Your task to perform on an android device: toggle show notifications on the lock screen Image 0: 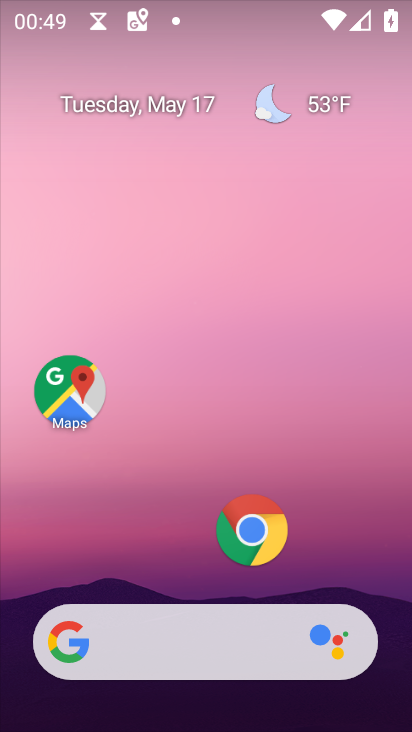
Step 0: drag from (377, 499) to (411, 2)
Your task to perform on an android device: toggle show notifications on the lock screen Image 1: 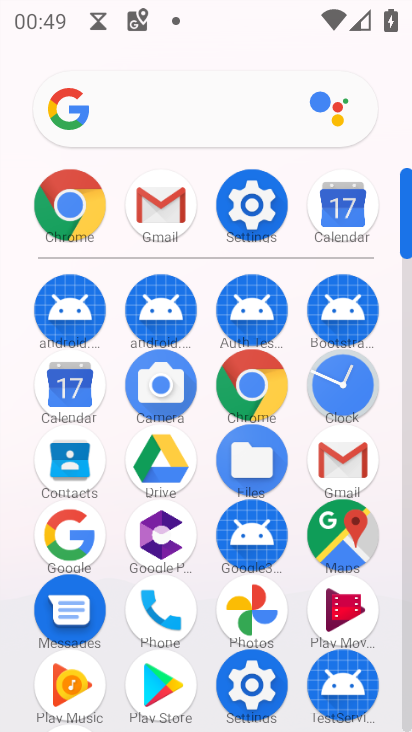
Step 1: click (255, 197)
Your task to perform on an android device: toggle show notifications on the lock screen Image 2: 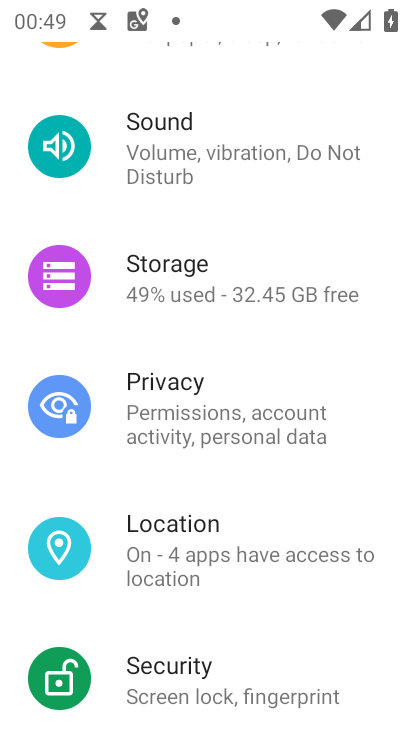
Step 2: drag from (229, 229) to (301, 542)
Your task to perform on an android device: toggle show notifications on the lock screen Image 3: 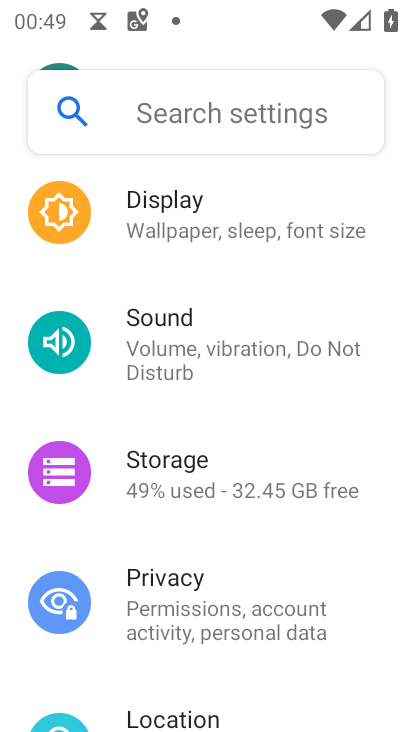
Step 3: drag from (223, 236) to (259, 528)
Your task to perform on an android device: toggle show notifications on the lock screen Image 4: 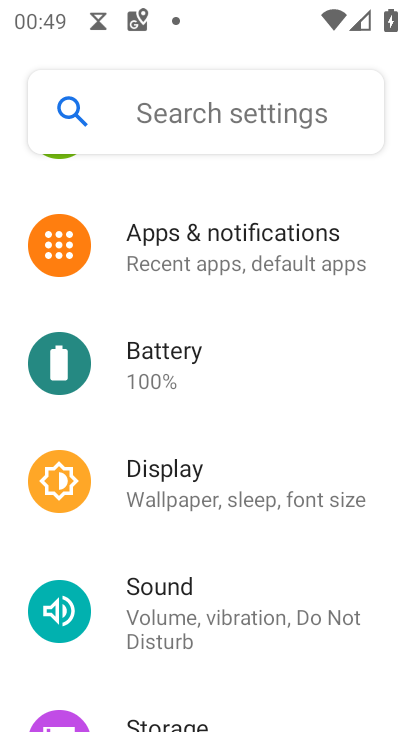
Step 4: click (157, 249)
Your task to perform on an android device: toggle show notifications on the lock screen Image 5: 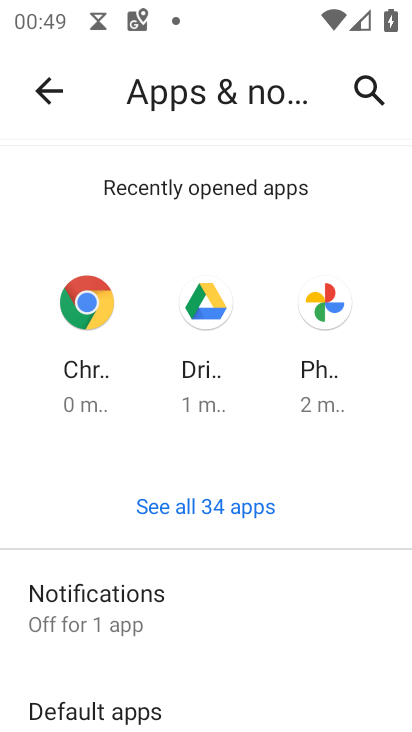
Step 5: click (101, 636)
Your task to perform on an android device: toggle show notifications on the lock screen Image 6: 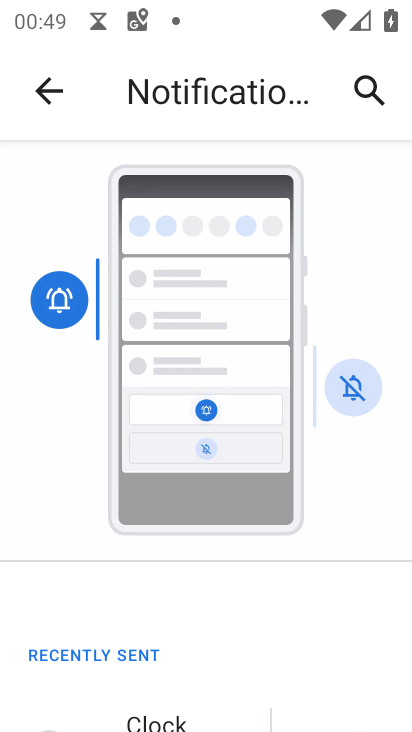
Step 6: drag from (150, 668) to (145, 166)
Your task to perform on an android device: toggle show notifications on the lock screen Image 7: 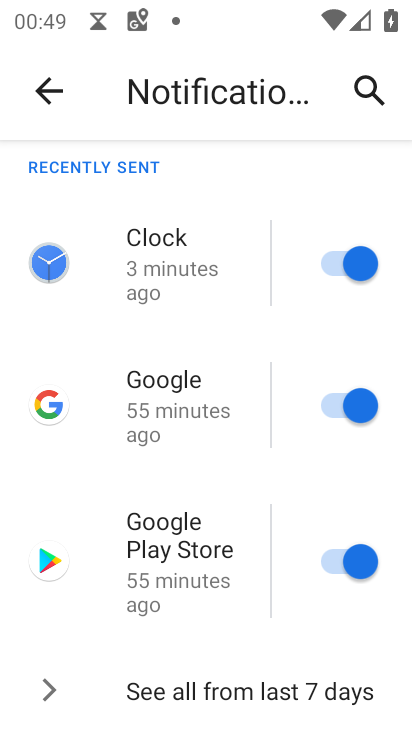
Step 7: drag from (162, 581) to (208, 186)
Your task to perform on an android device: toggle show notifications on the lock screen Image 8: 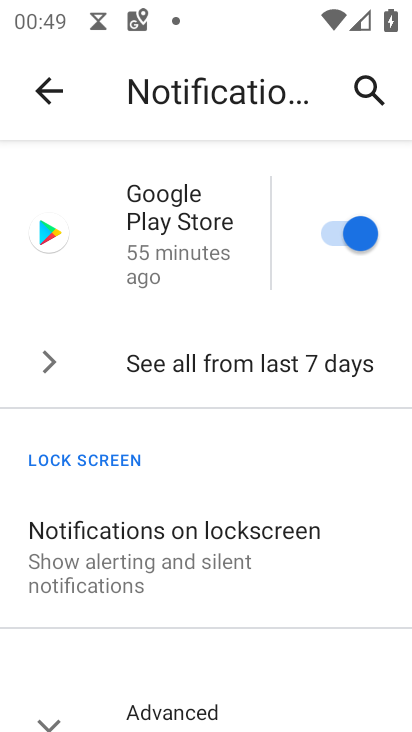
Step 8: click (126, 544)
Your task to perform on an android device: toggle show notifications on the lock screen Image 9: 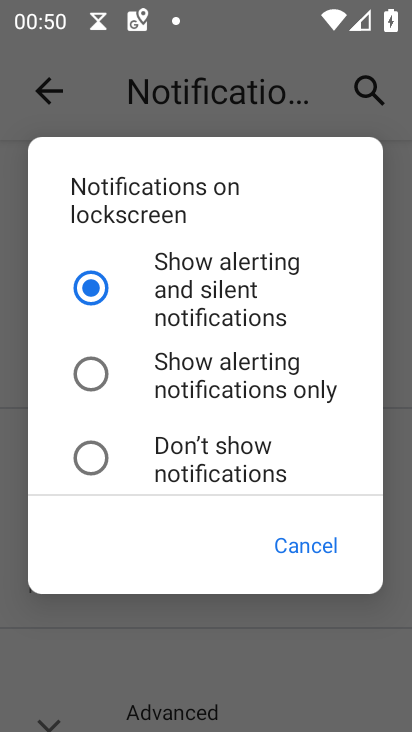
Step 9: click (121, 359)
Your task to perform on an android device: toggle show notifications on the lock screen Image 10: 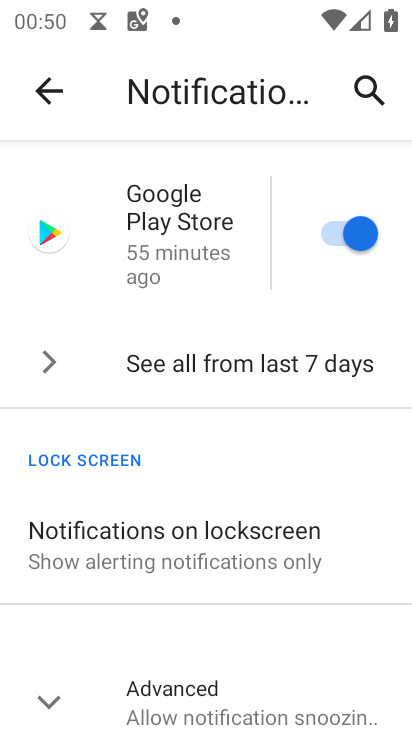
Step 10: task complete